Your task to perform on an android device: turn on bluetooth scan Image 0: 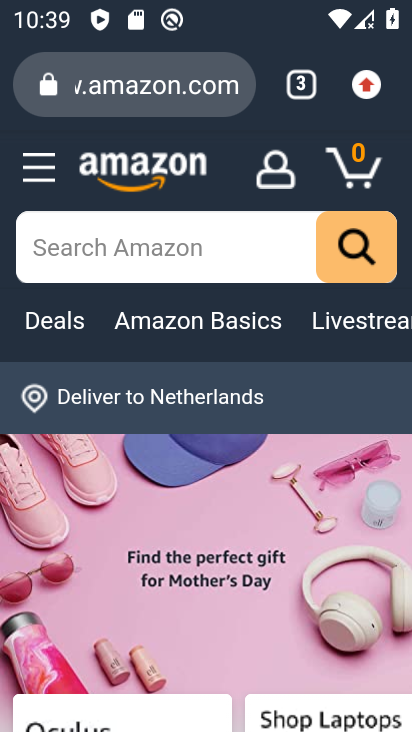
Step 0: press home button
Your task to perform on an android device: turn on bluetooth scan Image 1: 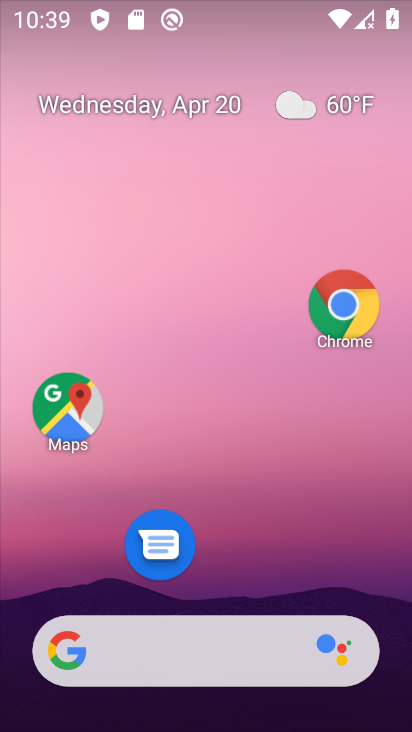
Step 1: drag from (229, 486) to (279, 84)
Your task to perform on an android device: turn on bluetooth scan Image 2: 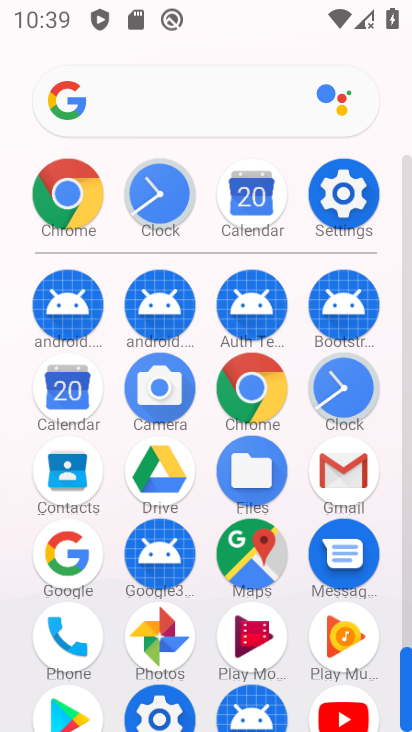
Step 2: click (332, 210)
Your task to perform on an android device: turn on bluetooth scan Image 3: 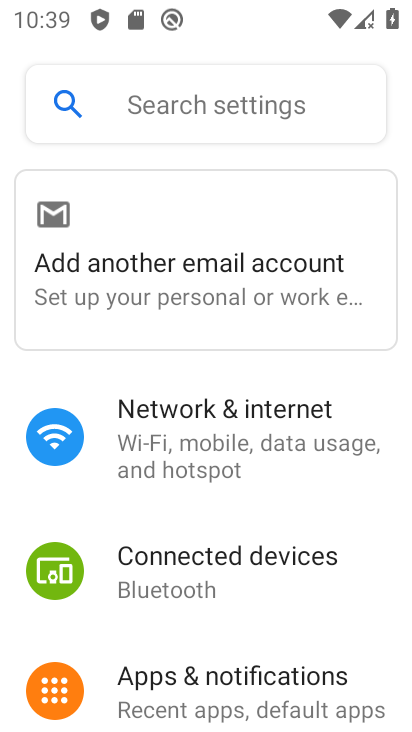
Step 3: click (269, 589)
Your task to perform on an android device: turn on bluetooth scan Image 4: 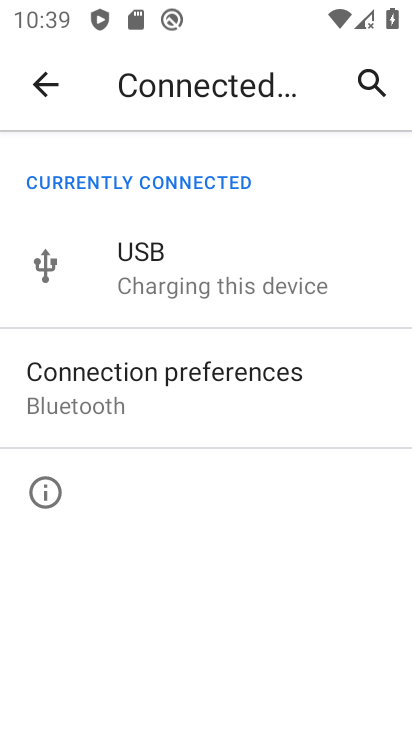
Step 4: click (253, 403)
Your task to perform on an android device: turn on bluetooth scan Image 5: 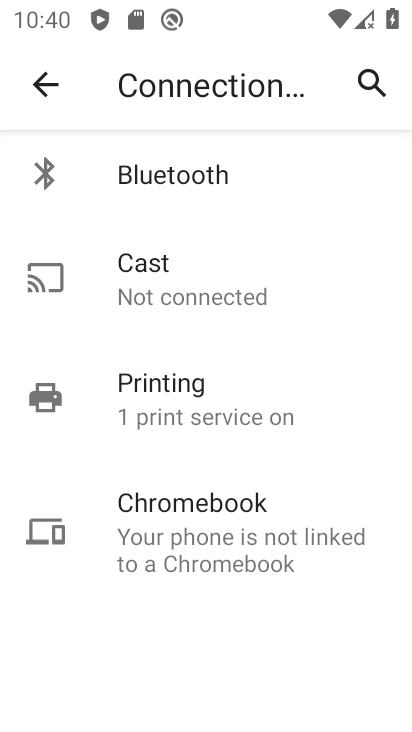
Step 5: click (234, 204)
Your task to perform on an android device: turn on bluetooth scan Image 6: 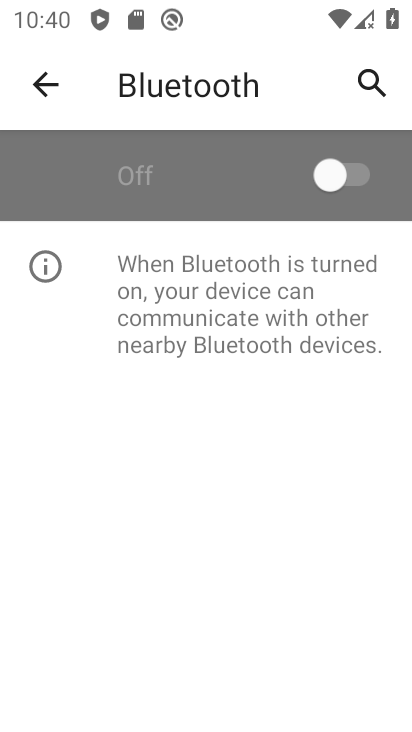
Step 6: click (361, 186)
Your task to perform on an android device: turn on bluetooth scan Image 7: 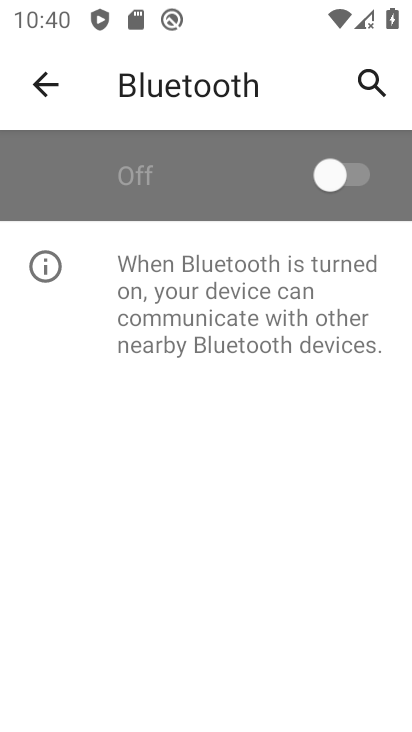
Step 7: task complete